Your task to perform on an android device: Add logitech g pro to the cart on target.com Image 0: 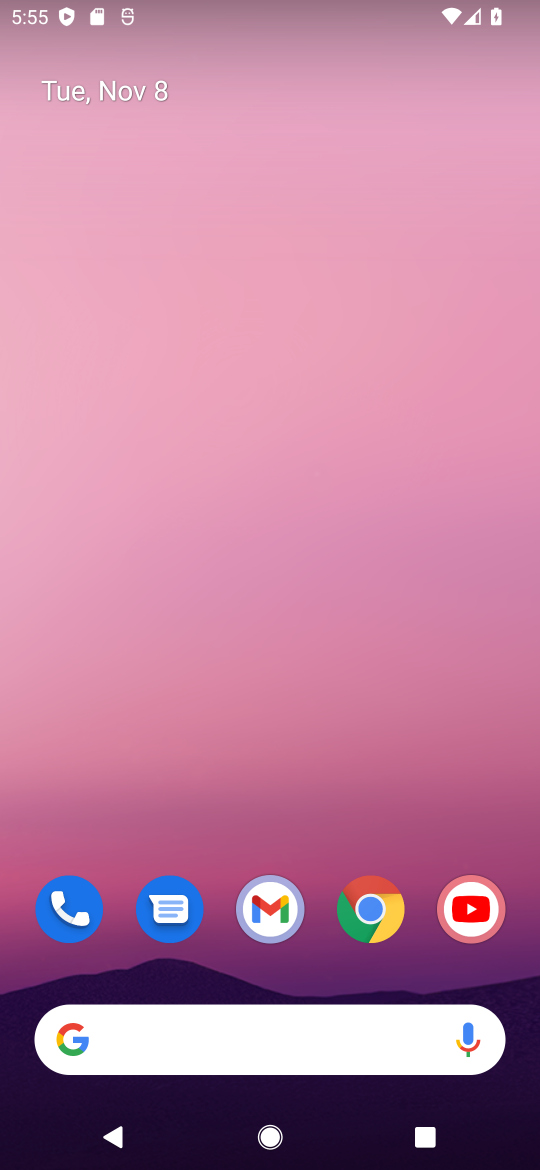
Step 0: click (364, 890)
Your task to perform on an android device: Add logitech g pro to the cart on target.com Image 1: 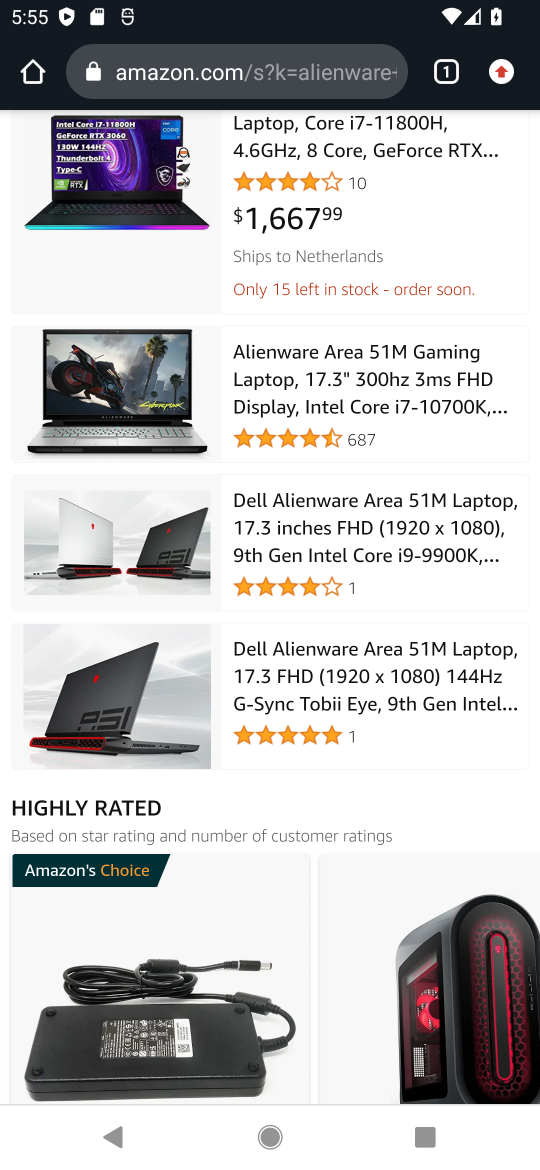
Step 1: click (326, 63)
Your task to perform on an android device: Add logitech g pro to the cart on target.com Image 2: 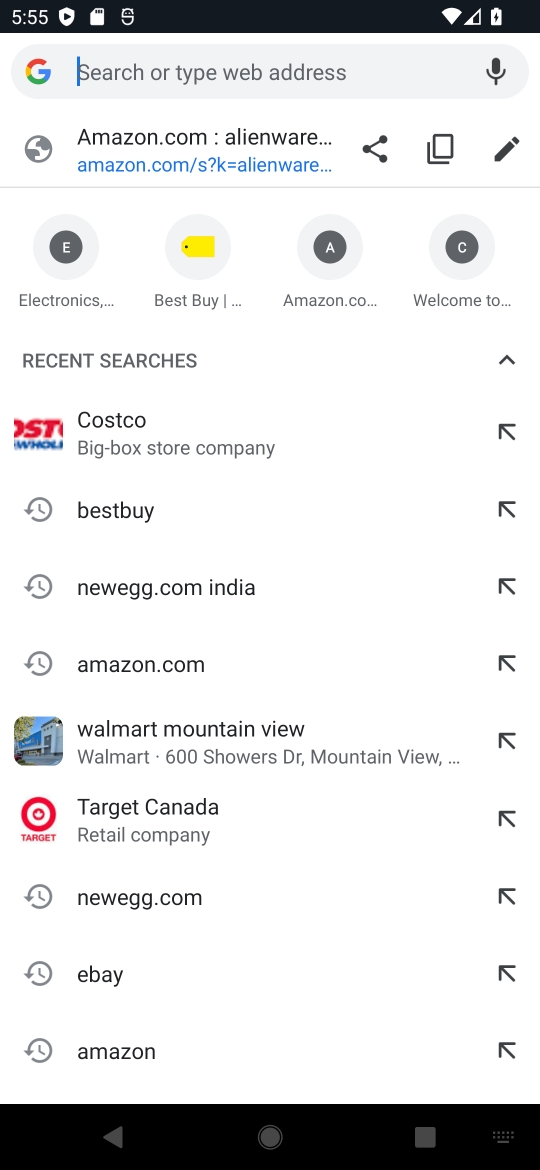
Step 2: type "target.com"
Your task to perform on an android device: Add logitech g pro to the cart on target.com Image 3: 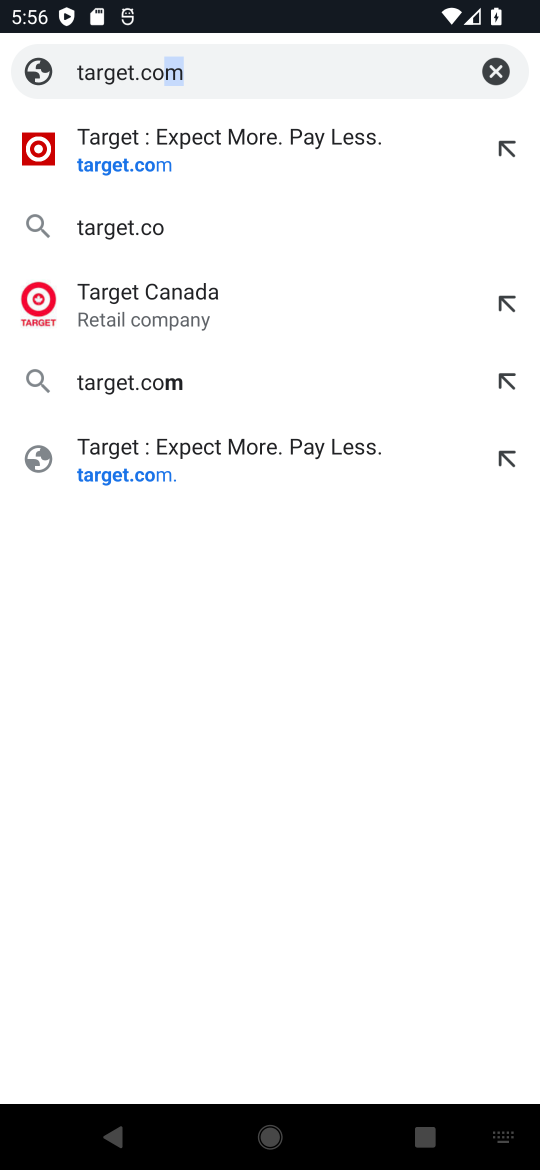
Step 3: press enter
Your task to perform on an android device: Add logitech g pro to the cart on target.com Image 4: 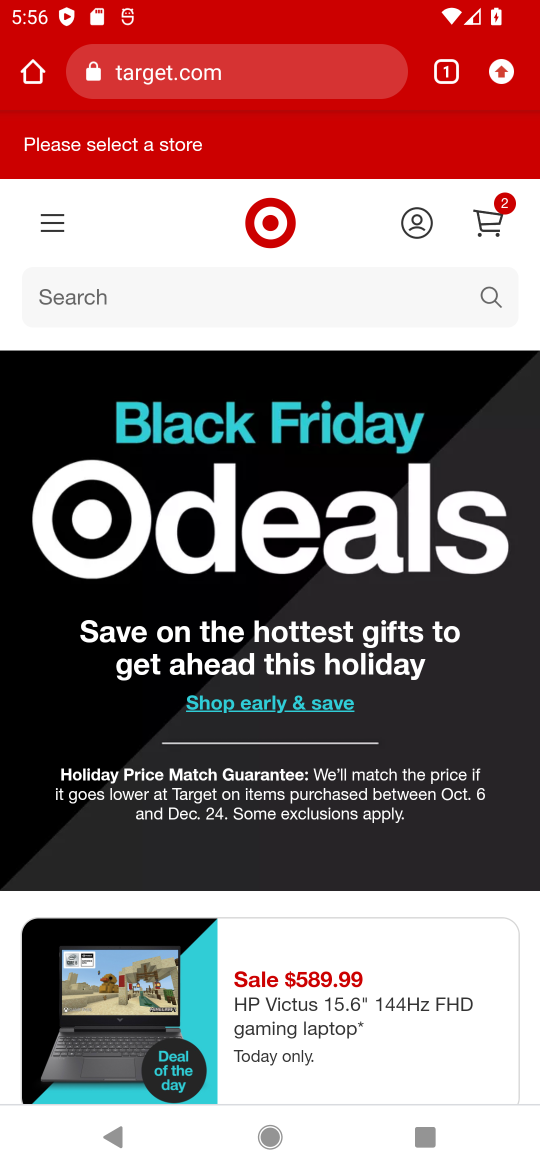
Step 4: click (131, 295)
Your task to perform on an android device: Add logitech g pro to the cart on target.com Image 5: 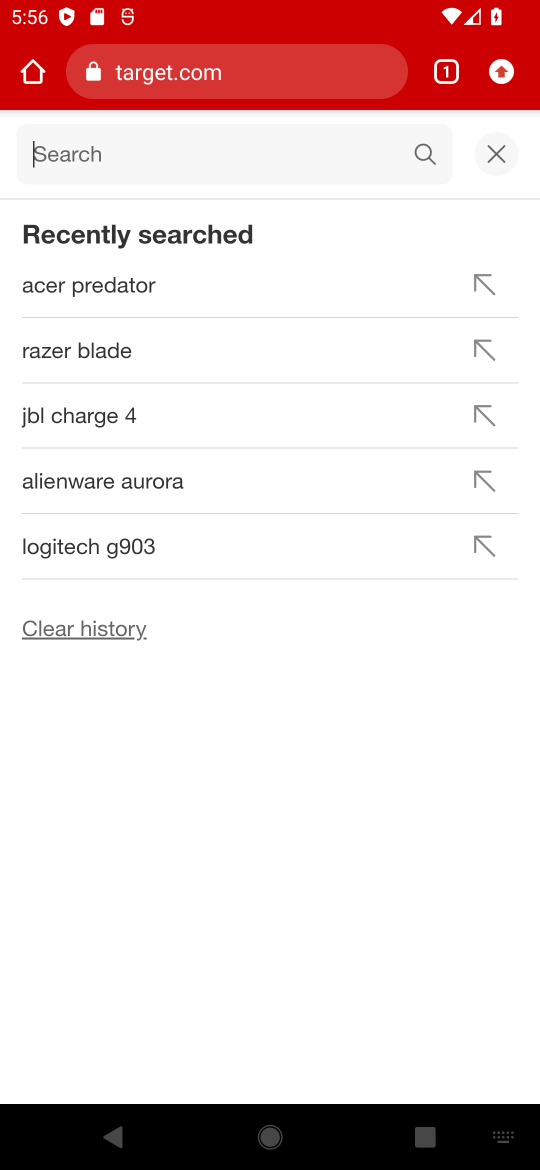
Step 5: type "logitech g pro "
Your task to perform on an android device: Add logitech g pro to the cart on target.com Image 6: 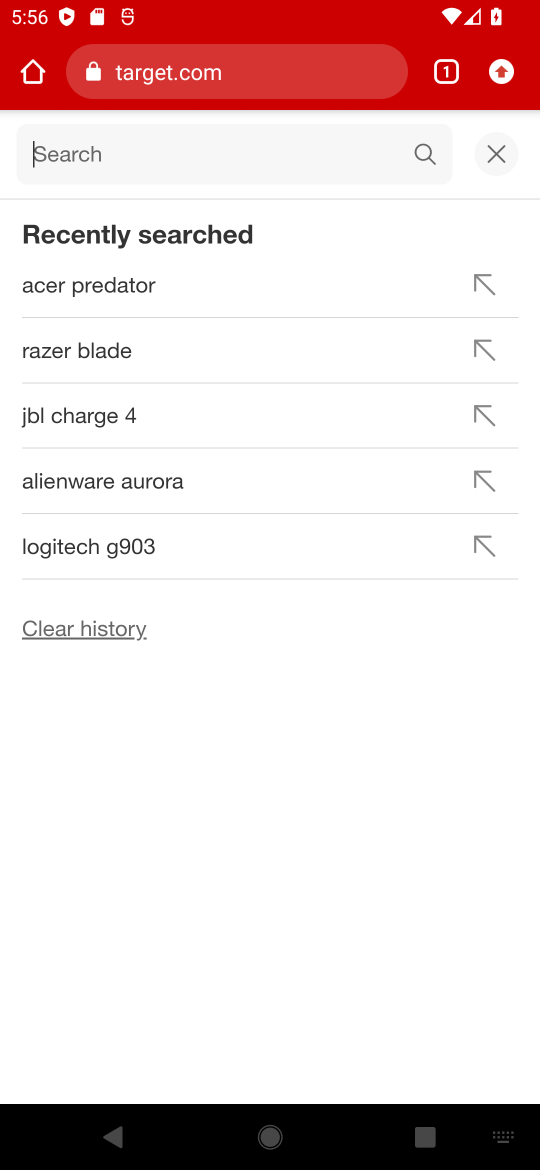
Step 6: press enter
Your task to perform on an android device: Add logitech g pro to the cart on target.com Image 7: 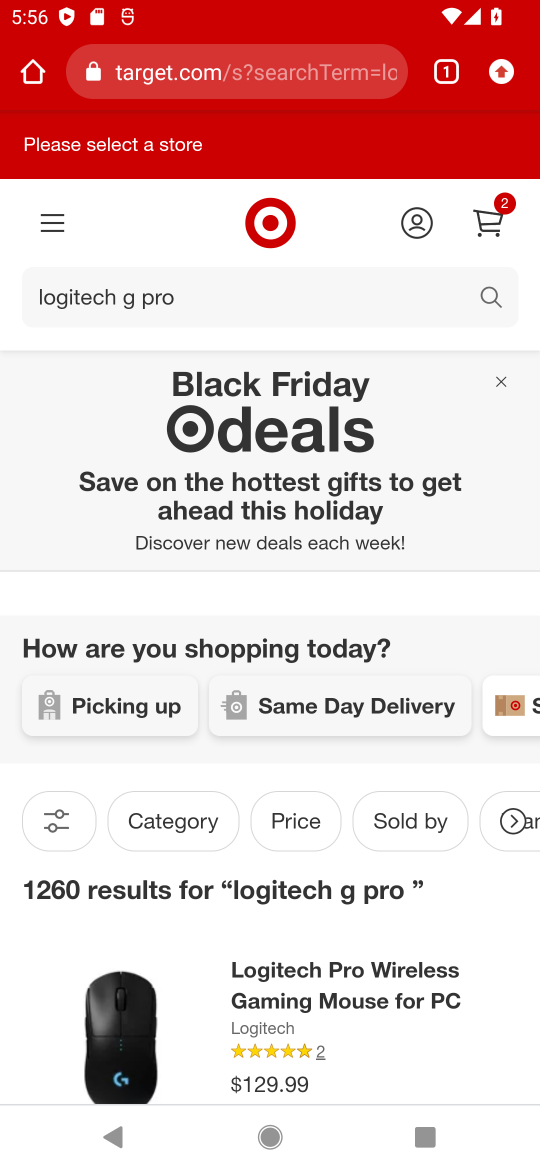
Step 7: task complete